Your task to perform on an android device: refresh tabs in the chrome app Image 0: 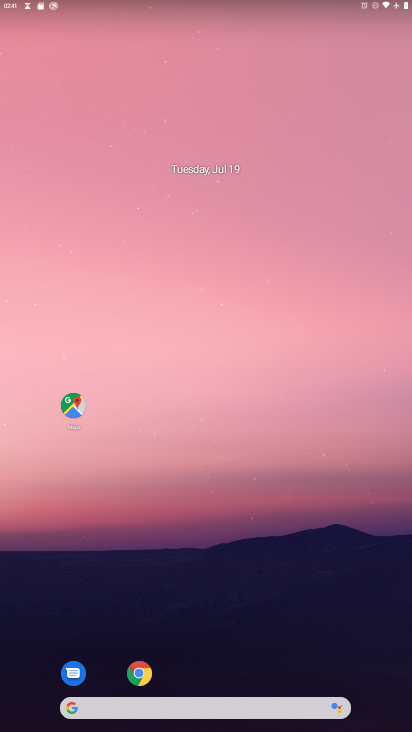
Step 0: drag from (198, 617) to (196, 535)
Your task to perform on an android device: refresh tabs in the chrome app Image 1: 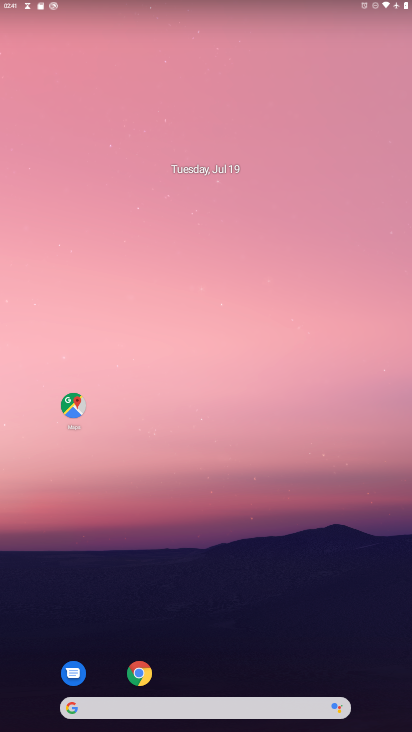
Step 1: drag from (203, 649) to (212, 173)
Your task to perform on an android device: refresh tabs in the chrome app Image 2: 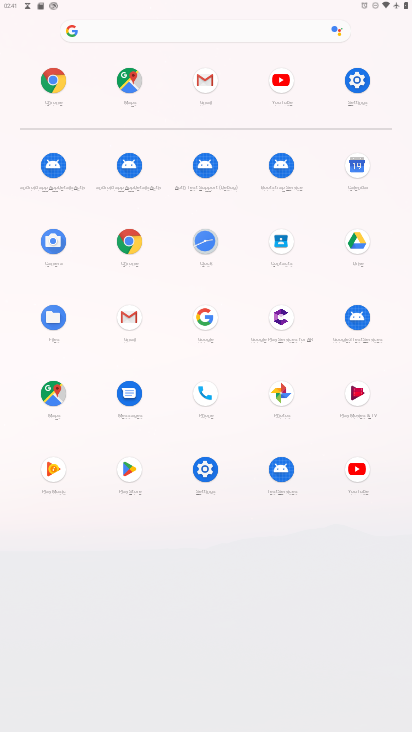
Step 2: click (124, 240)
Your task to perform on an android device: refresh tabs in the chrome app Image 3: 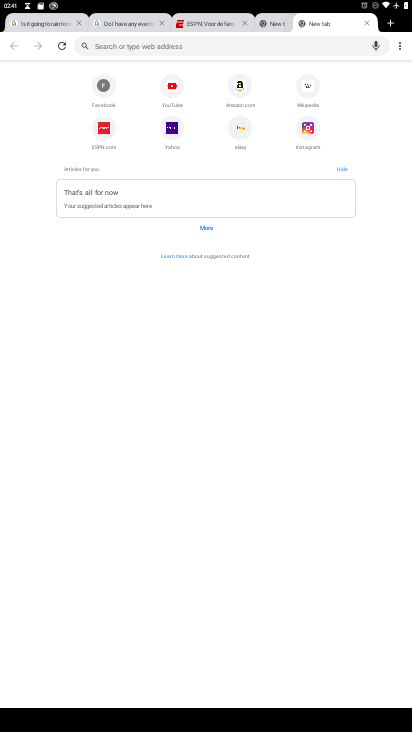
Step 3: click (62, 41)
Your task to perform on an android device: refresh tabs in the chrome app Image 4: 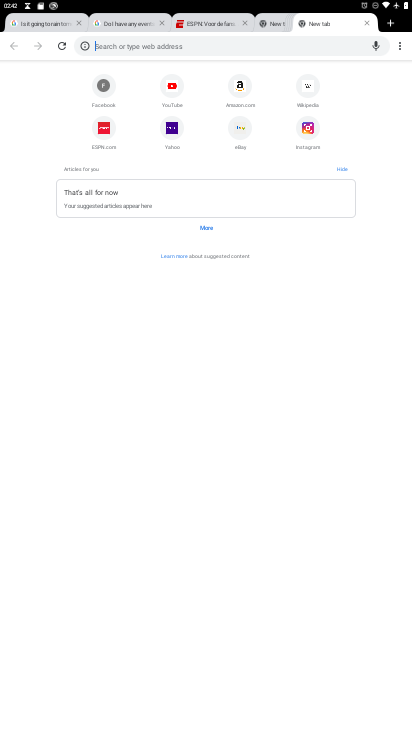
Step 4: task complete